Your task to perform on an android device: Open Chrome and go to settings Image 0: 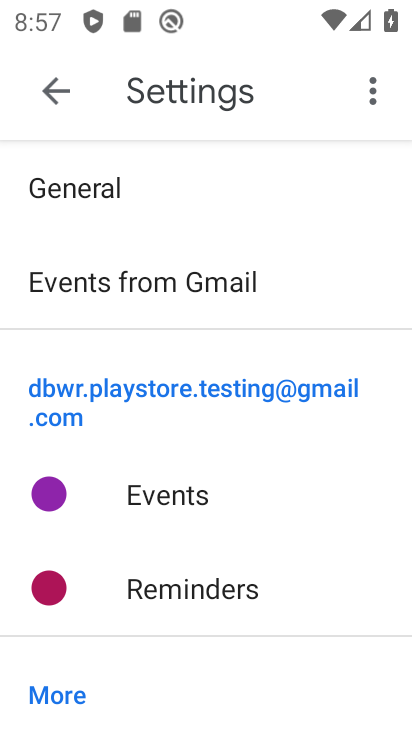
Step 0: press home button
Your task to perform on an android device: Open Chrome and go to settings Image 1: 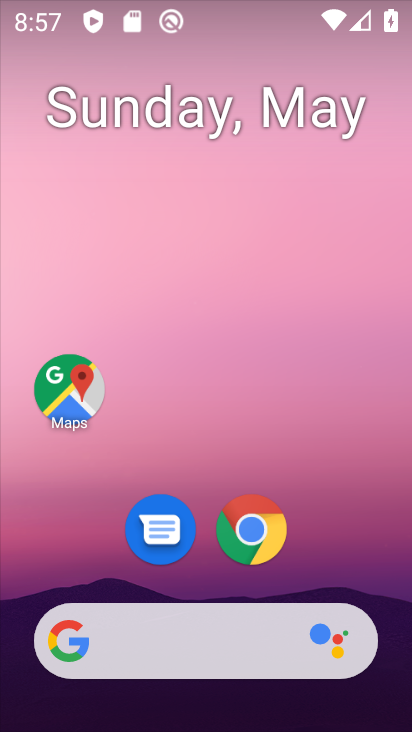
Step 1: click (241, 532)
Your task to perform on an android device: Open Chrome and go to settings Image 2: 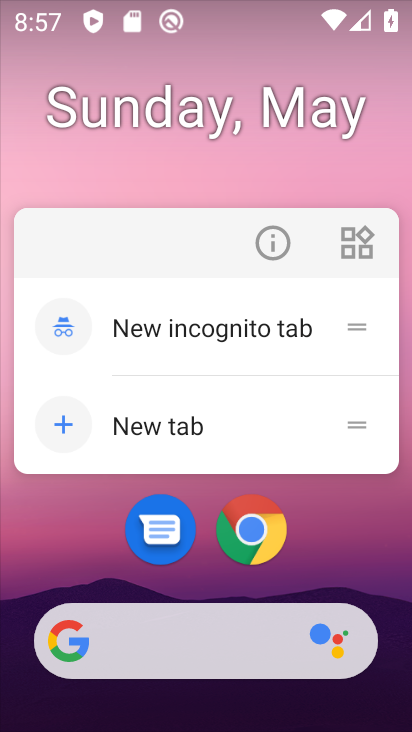
Step 2: click (241, 532)
Your task to perform on an android device: Open Chrome and go to settings Image 3: 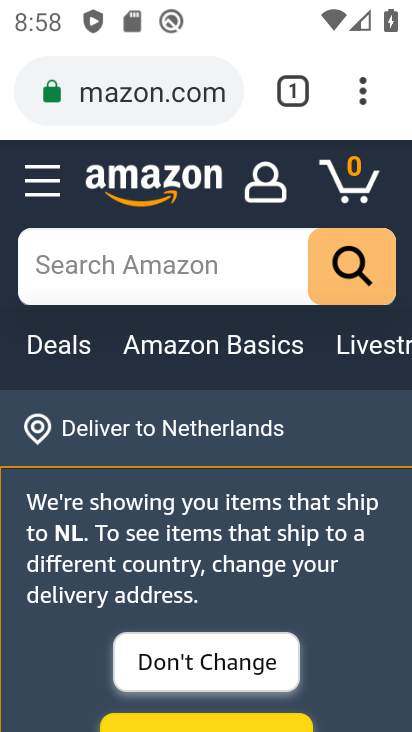
Step 3: click (357, 92)
Your task to perform on an android device: Open Chrome and go to settings Image 4: 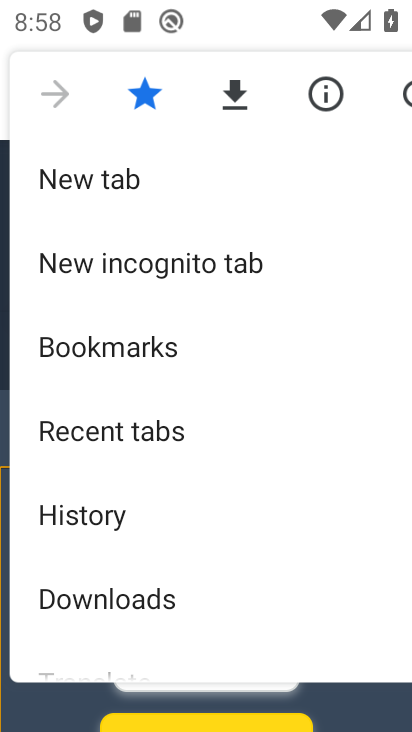
Step 4: drag from (274, 564) to (289, 109)
Your task to perform on an android device: Open Chrome and go to settings Image 5: 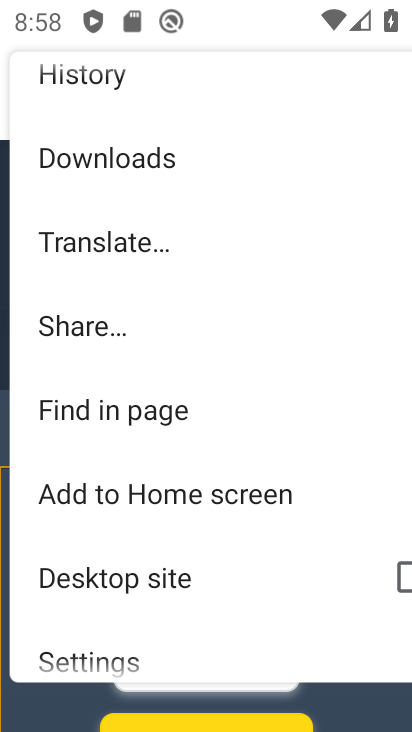
Step 5: click (107, 659)
Your task to perform on an android device: Open Chrome and go to settings Image 6: 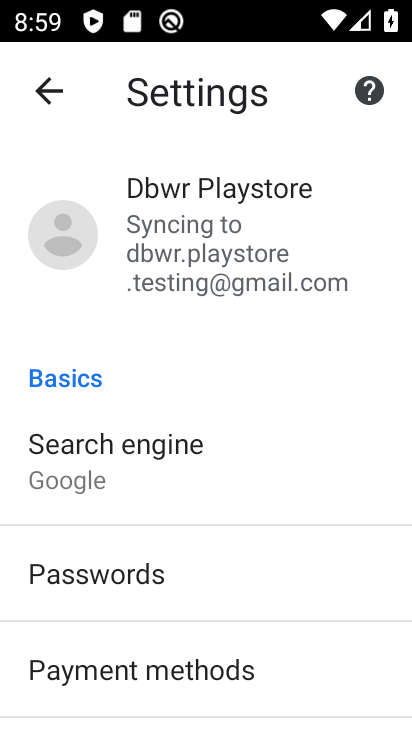
Step 6: task complete